Your task to perform on an android device: change text size in settings app Image 0: 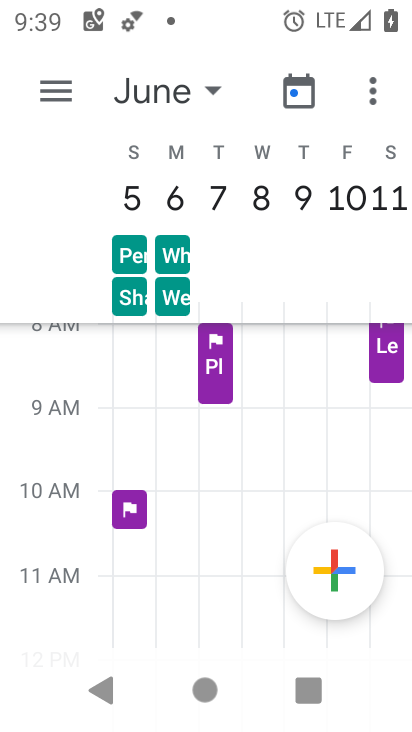
Step 0: press home button
Your task to perform on an android device: change text size in settings app Image 1: 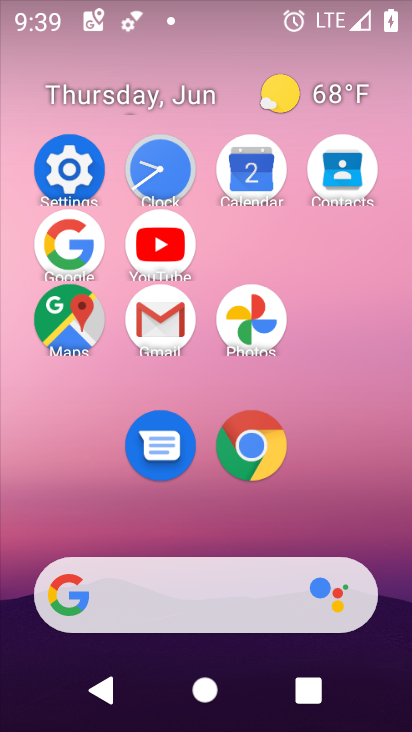
Step 1: click (76, 164)
Your task to perform on an android device: change text size in settings app Image 2: 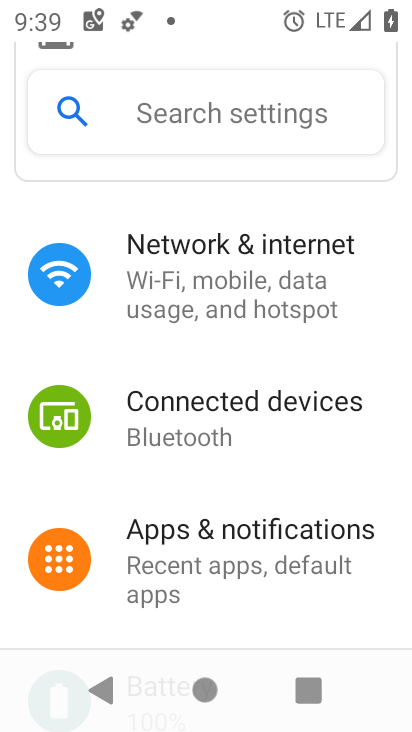
Step 2: drag from (228, 550) to (196, 196)
Your task to perform on an android device: change text size in settings app Image 3: 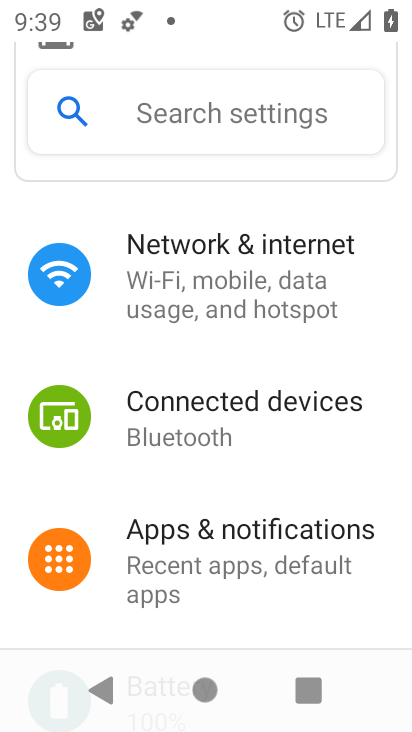
Step 3: drag from (192, 580) to (244, 244)
Your task to perform on an android device: change text size in settings app Image 4: 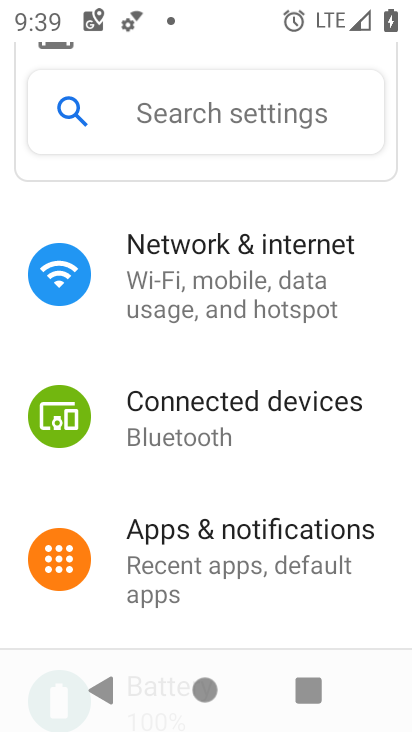
Step 4: drag from (225, 594) to (294, 268)
Your task to perform on an android device: change text size in settings app Image 5: 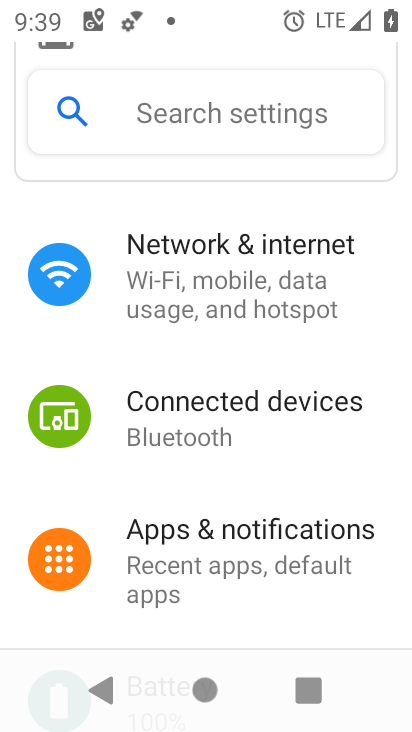
Step 5: drag from (249, 593) to (265, 371)
Your task to perform on an android device: change text size in settings app Image 6: 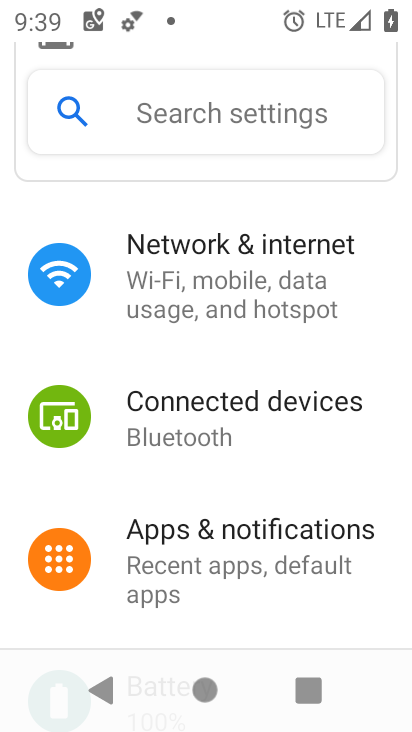
Step 6: drag from (287, 478) to (243, 84)
Your task to perform on an android device: change text size in settings app Image 7: 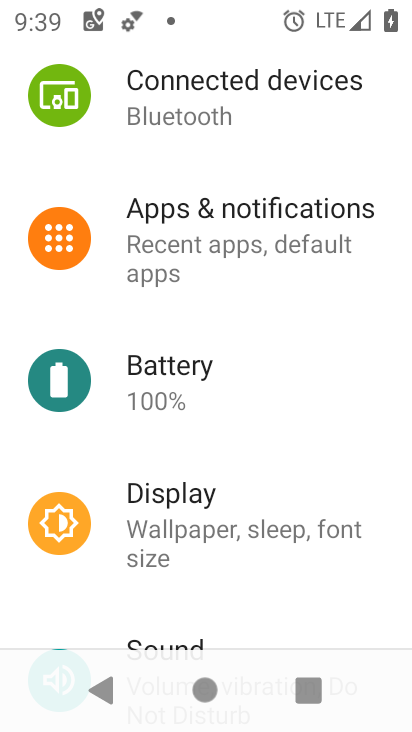
Step 7: drag from (288, 492) to (292, 143)
Your task to perform on an android device: change text size in settings app Image 8: 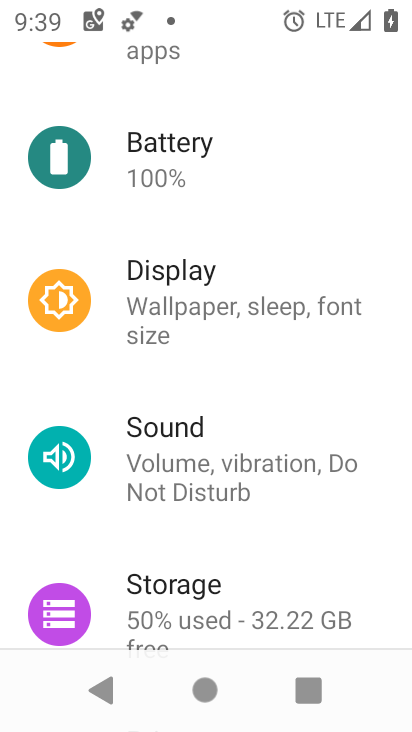
Step 8: click (264, 277)
Your task to perform on an android device: change text size in settings app Image 9: 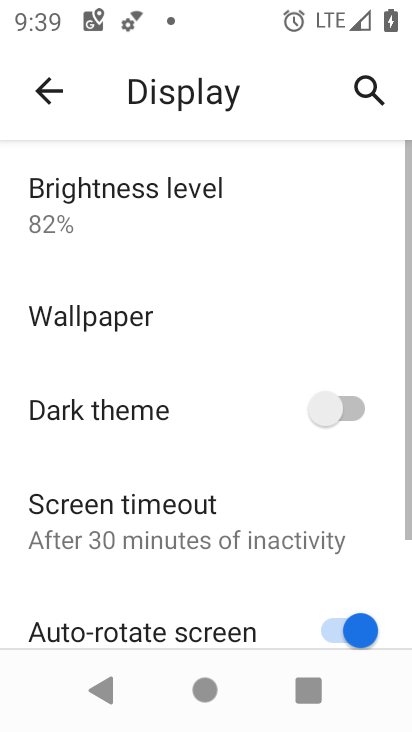
Step 9: drag from (246, 483) to (254, 197)
Your task to perform on an android device: change text size in settings app Image 10: 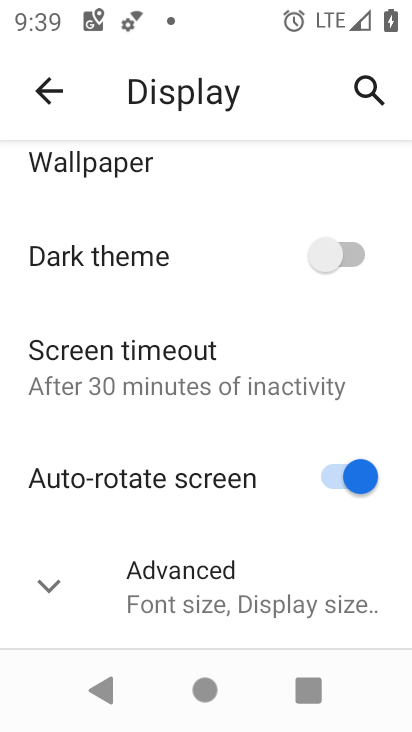
Step 10: click (194, 603)
Your task to perform on an android device: change text size in settings app Image 11: 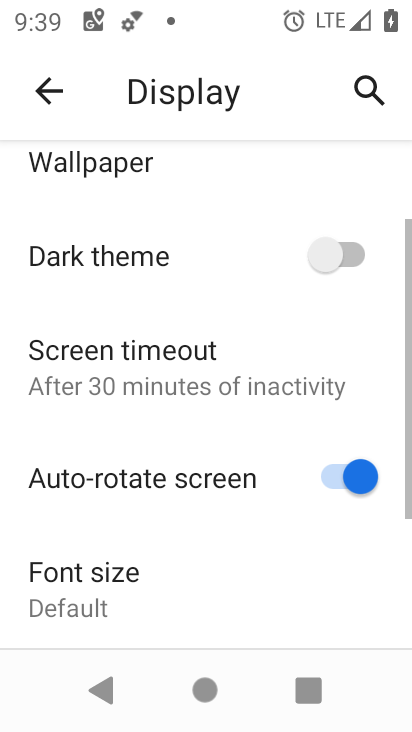
Step 11: click (174, 595)
Your task to perform on an android device: change text size in settings app Image 12: 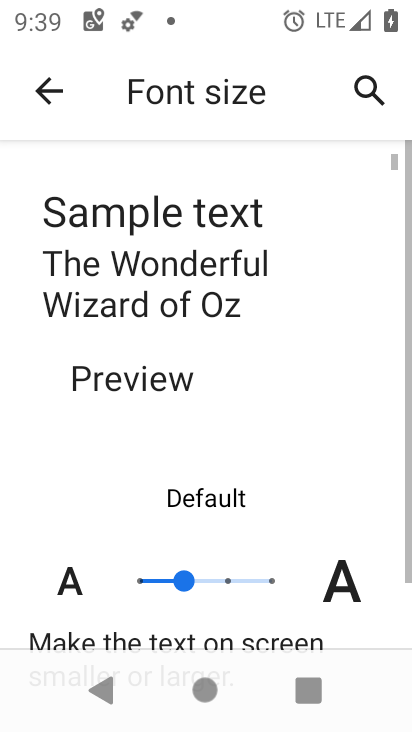
Step 12: click (138, 586)
Your task to perform on an android device: change text size in settings app Image 13: 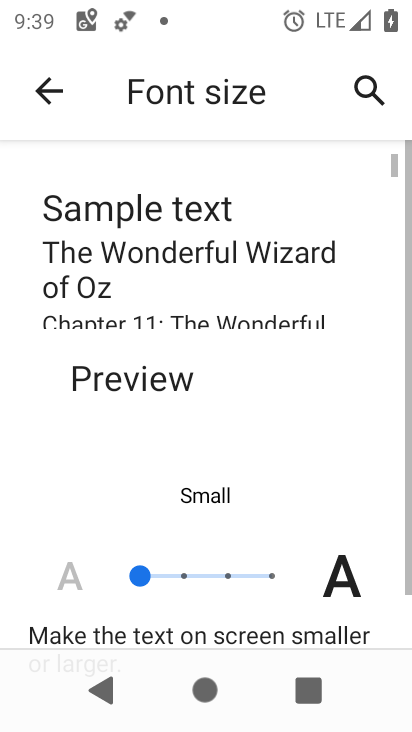
Step 13: task complete